Your task to perform on an android device: Go to Android settings Image 0: 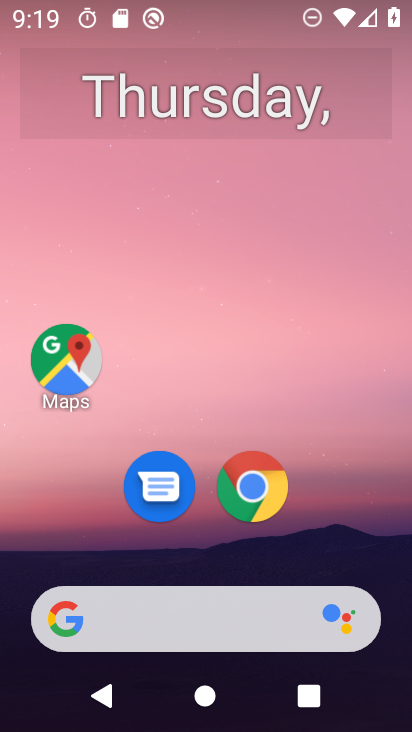
Step 0: drag from (113, 548) to (241, 4)
Your task to perform on an android device: Go to Android settings Image 1: 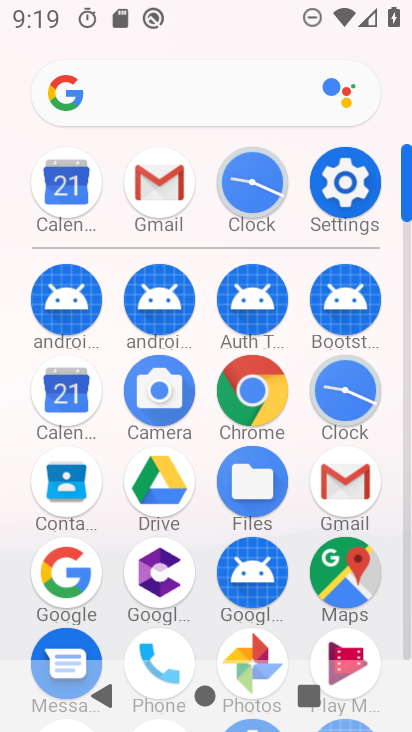
Step 1: click (334, 183)
Your task to perform on an android device: Go to Android settings Image 2: 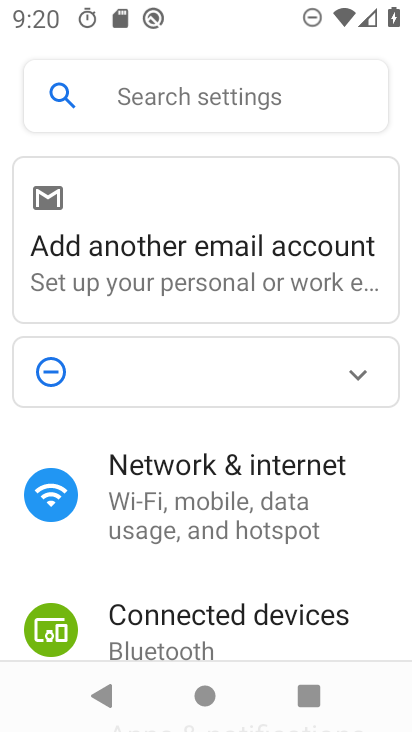
Step 2: drag from (216, 638) to (332, 34)
Your task to perform on an android device: Go to Android settings Image 3: 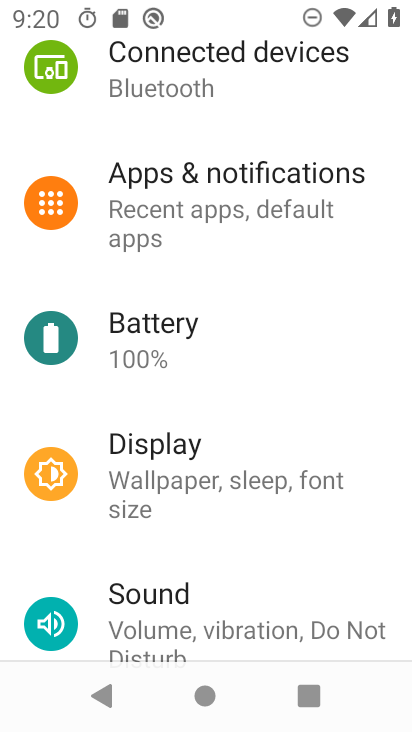
Step 3: drag from (189, 605) to (273, 17)
Your task to perform on an android device: Go to Android settings Image 4: 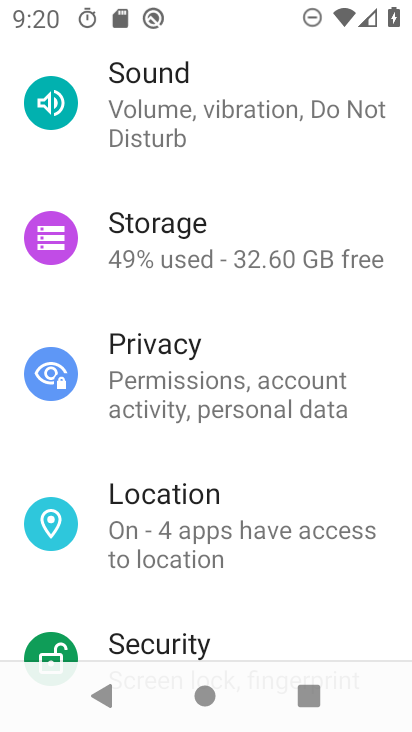
Step 4: drag from (215, 613) to (311, 21)
Your task to perform on an android device: Go to Android settings Image 5: 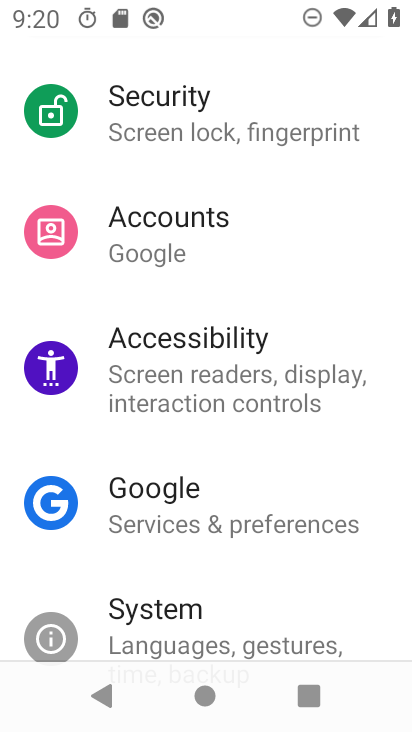
Step 5: drag from (170, 620) to (299, 15)
Your task to perform on an android device: Go to Android settings Image 6: 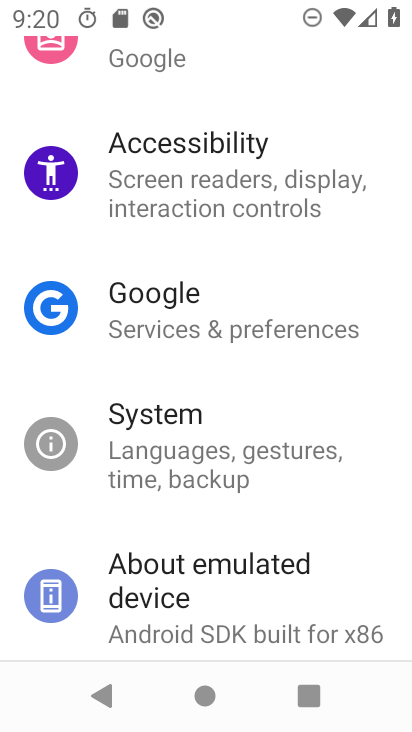
Step 6: click (214, 587)
Your task to perform on an android device: Go to Android settings Image 7: 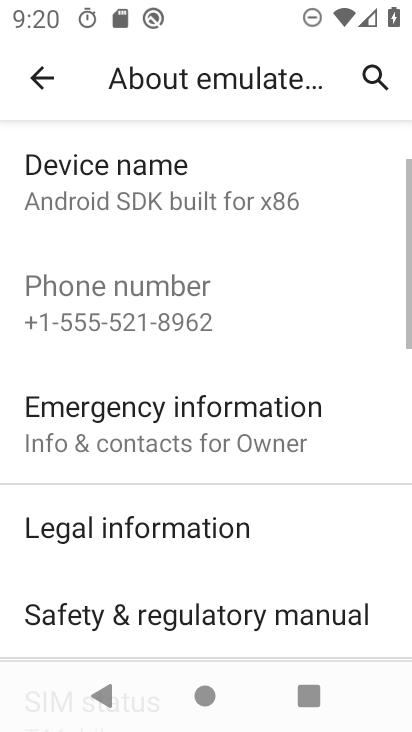
Step 7: drag from (213, 586) to (264, 14)
Your task to perform on an android device: Go to Android settings Image 8: 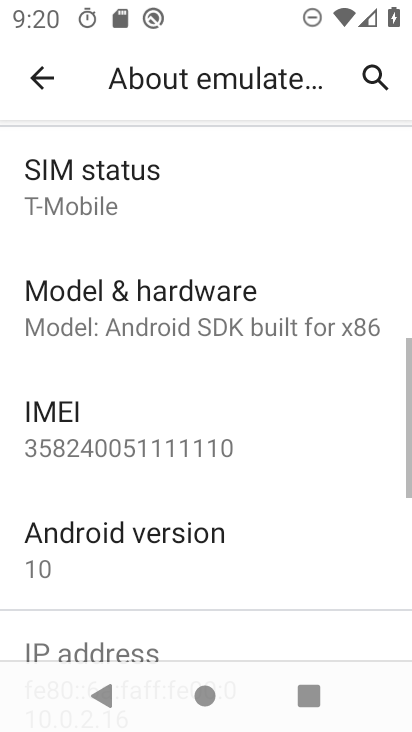
Step 8: click (125, 566)
Your task to perform on an android device: Go to Android settings Image 9: 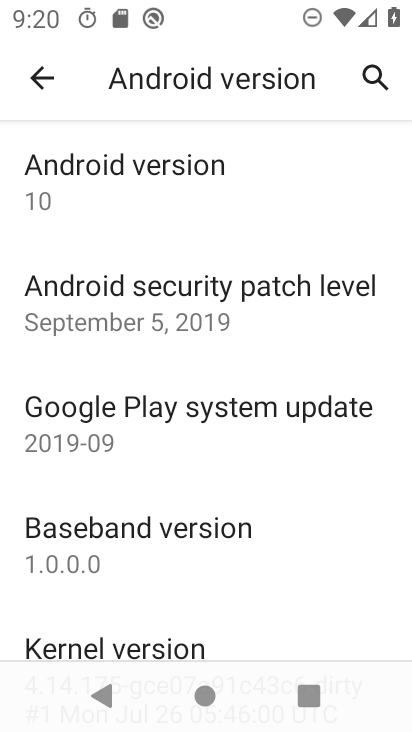
Step 9: task complete